Your task to perform on an android device: turn off location history Image 0: 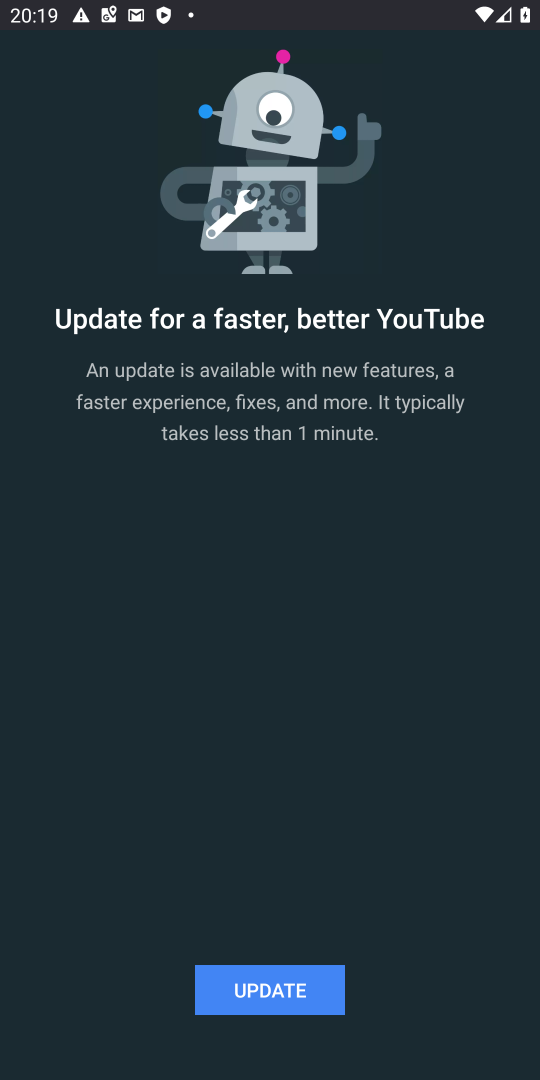
Step 0: press home button
Your task to perform on an android device: turn off location history Image 1: 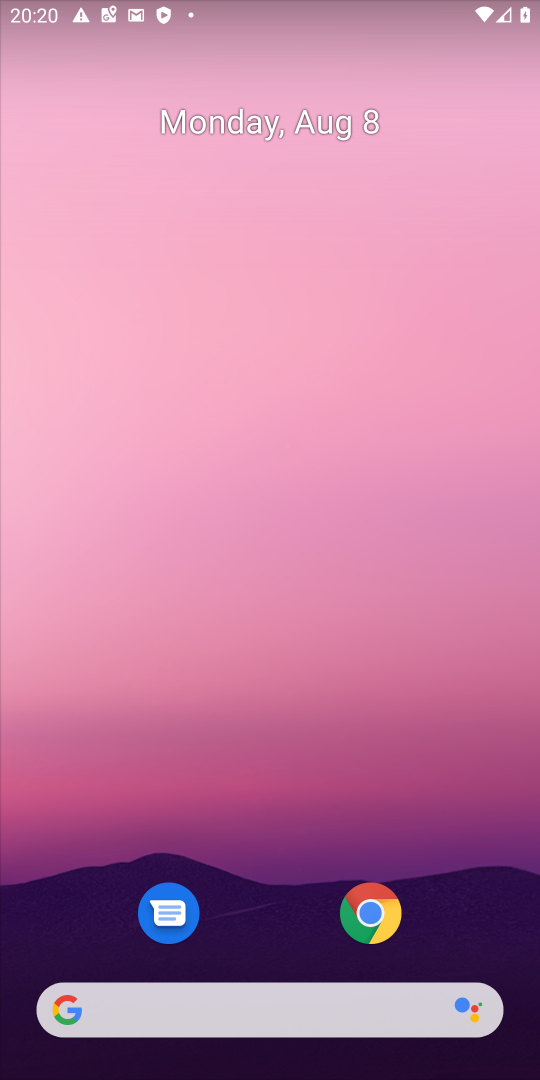
Step 1: drag from (251, 513) to (155, 721)
Your task to perform on an android device: turn off location history Image 2: 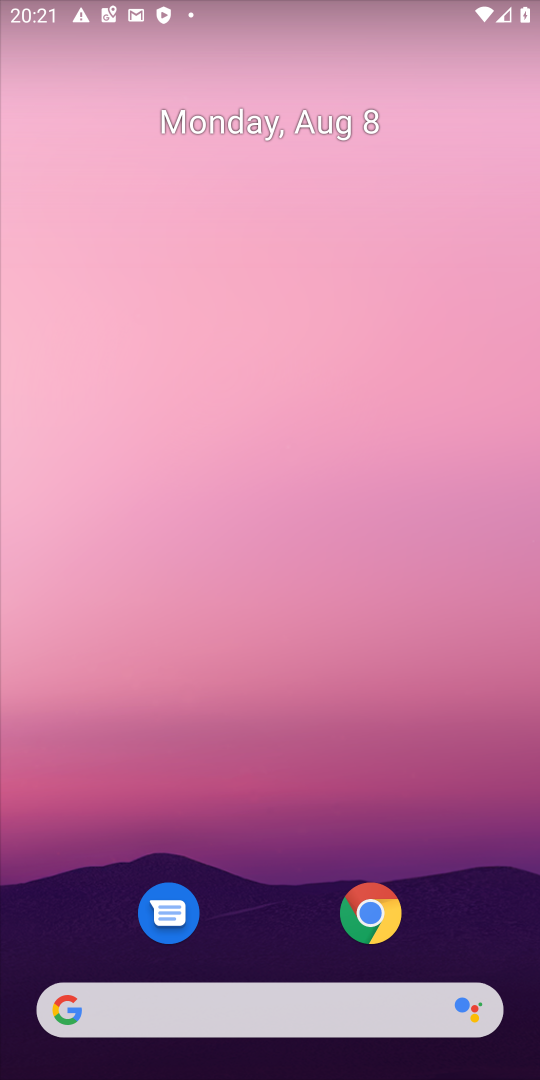
Step 2: drag from (240, 989) to (256, 4)
Your task to perform on an android device: turn off location history Image 3: 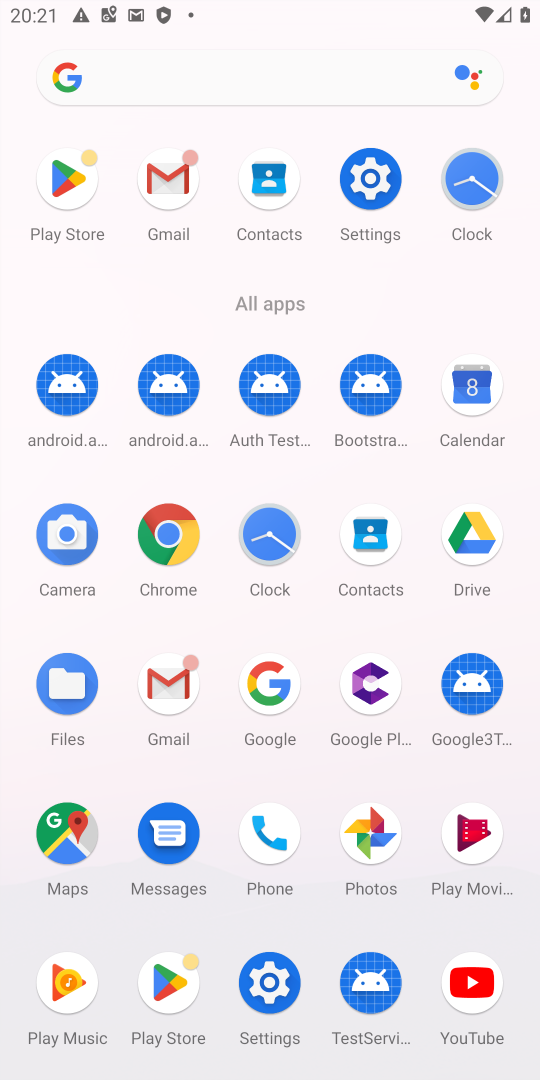
Step 3: click (75, 825)
Your task to perform on an android device: turn off location history Image 4: 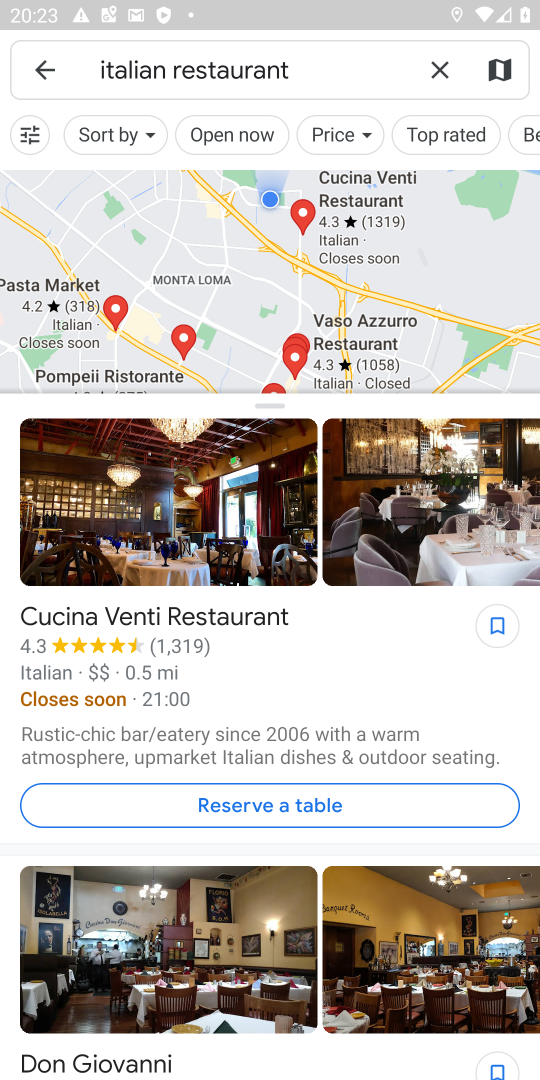
Step 4: click (39, 69)
Your task to perform on an android device: turn off location history Image 5: 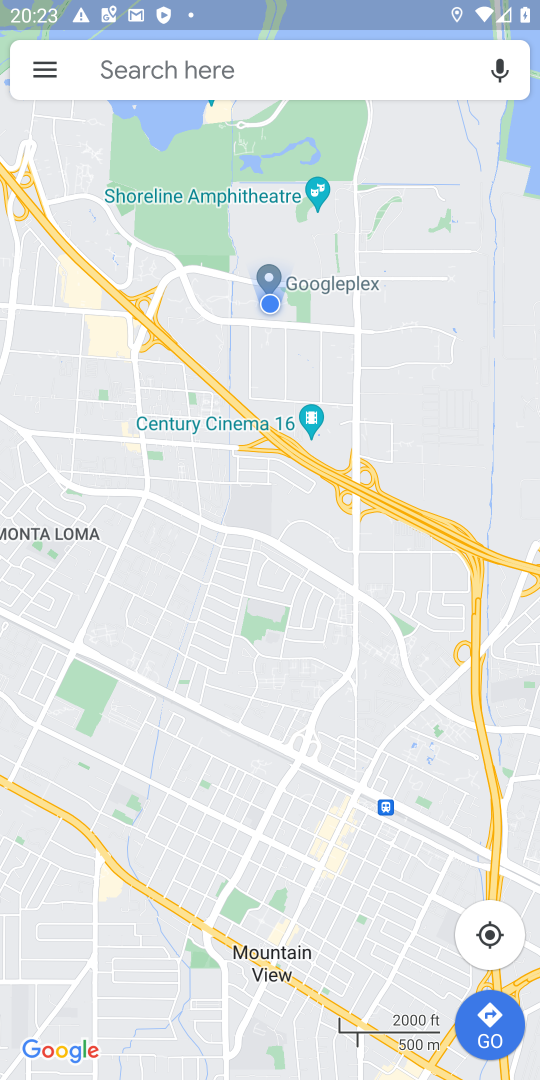
Step 5: click (39, 69)
Your task to perform on an android device: turn off location history Image 6: 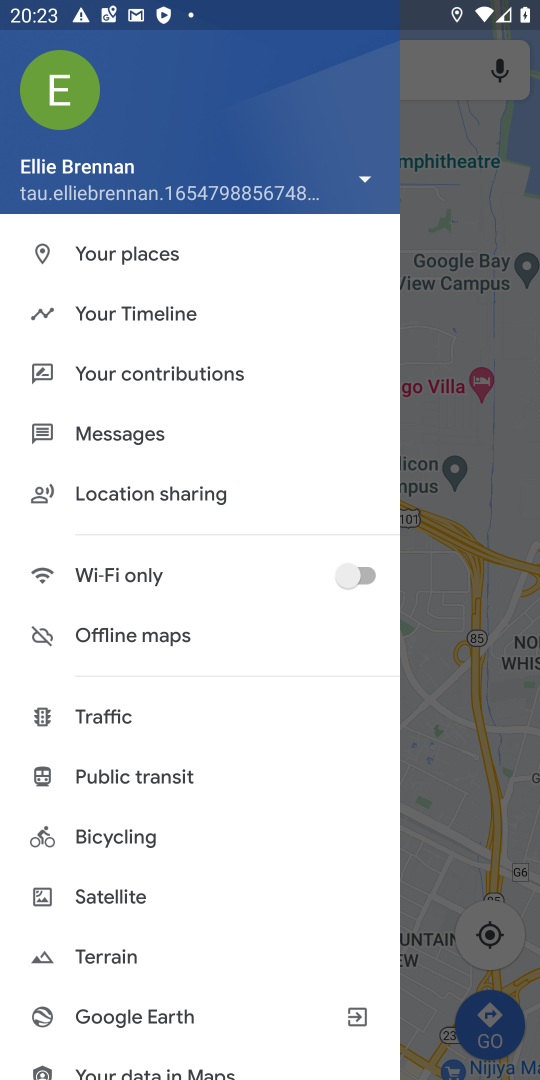
Step 6: task complete